Your task to perform on an android device: Turn on the flashlight Image 0: 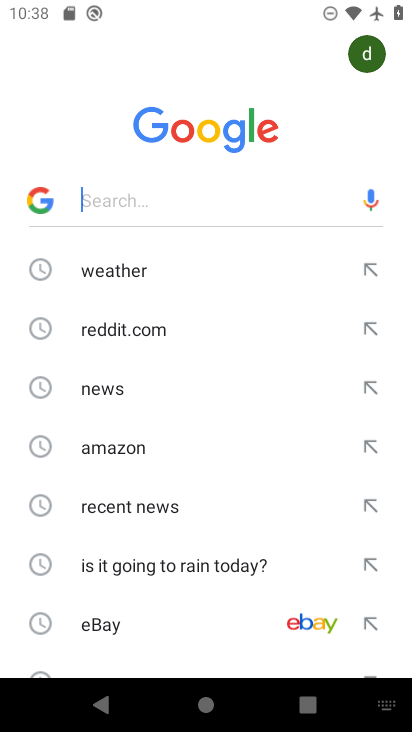
Step 0: press home button
Your task to perform on an android device: Turn on the flashlight Image 1: 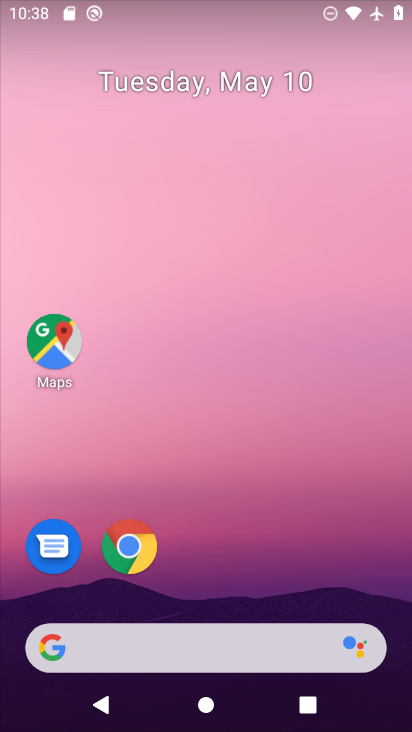
Step 1: task complete